Your task to perform on an android device: turn off sleep mode Image 0: 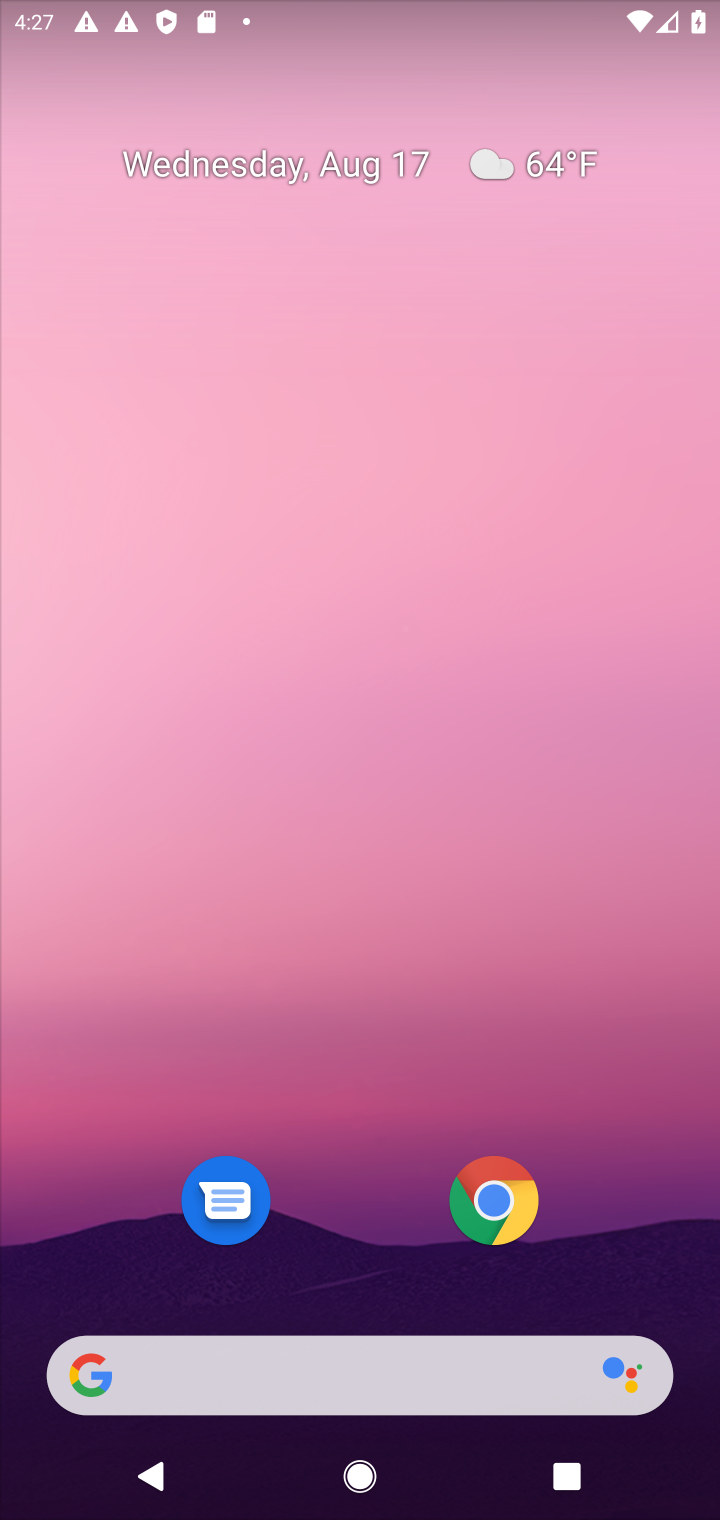
Step 0: drag from (411, 1209) to (411, 463)
Your task to perform on an android device: turn off sleep mode Image 1: 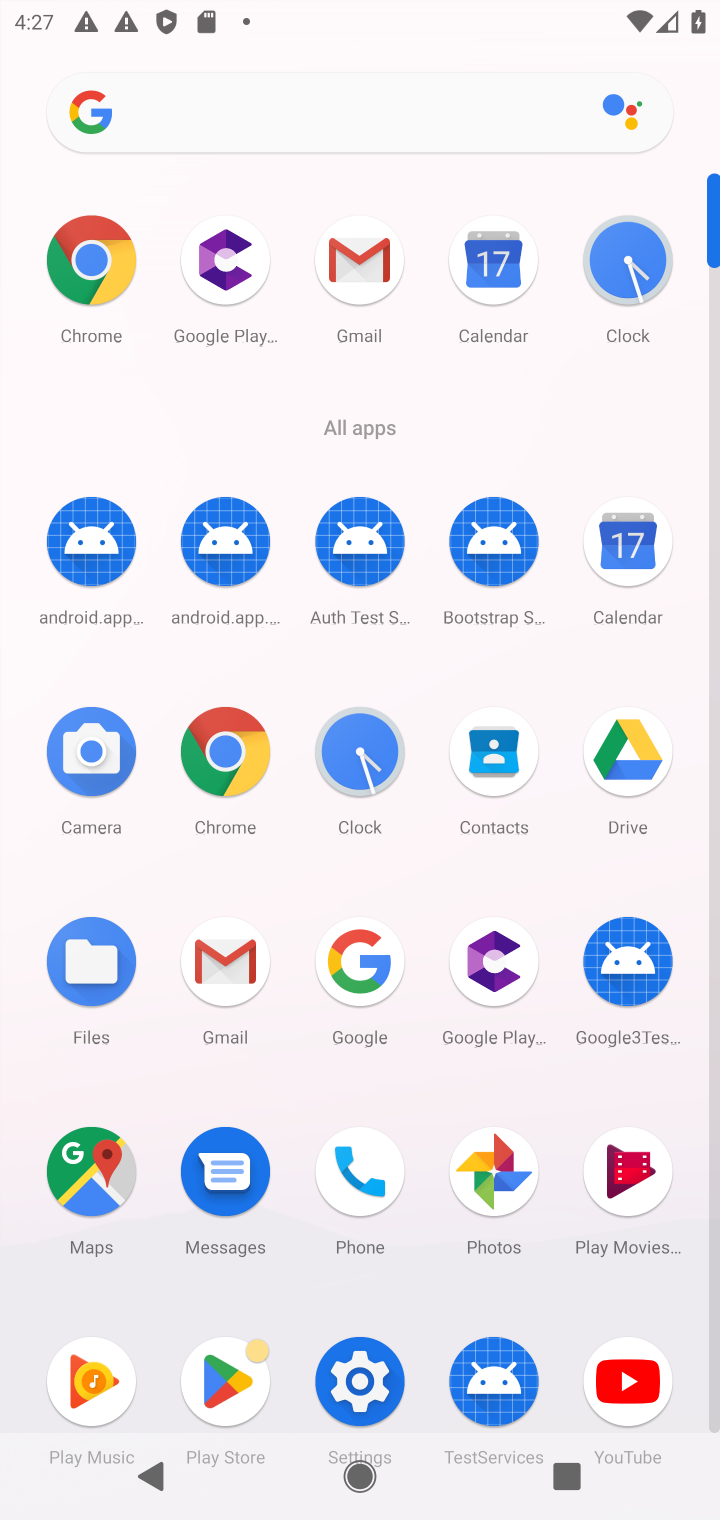
Step 1: click (354, 1369)
Your task to perform on an android device: turn off sleep mode Image 2: 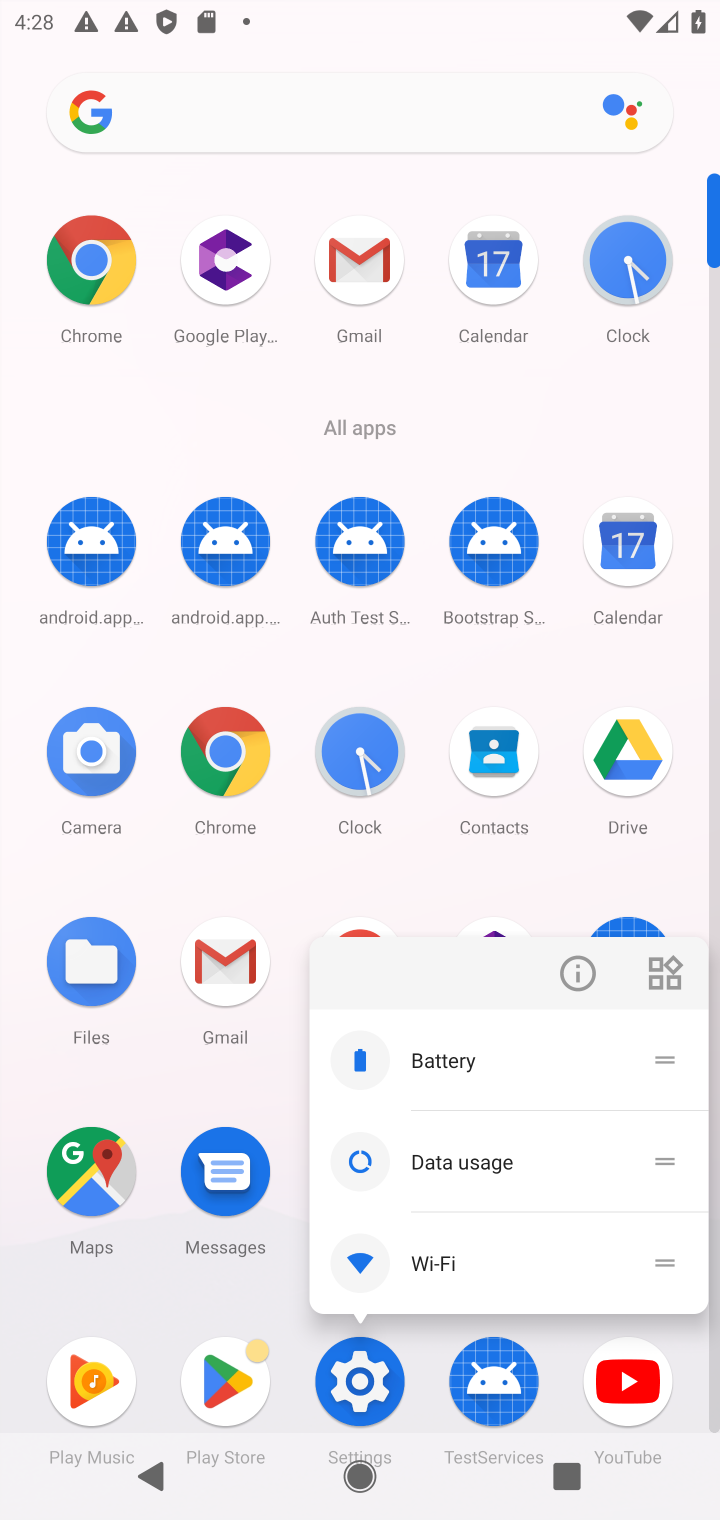
Step 2: click (354, 1377)
Your task to perform on an android device: turn off sleep mode Image 3: 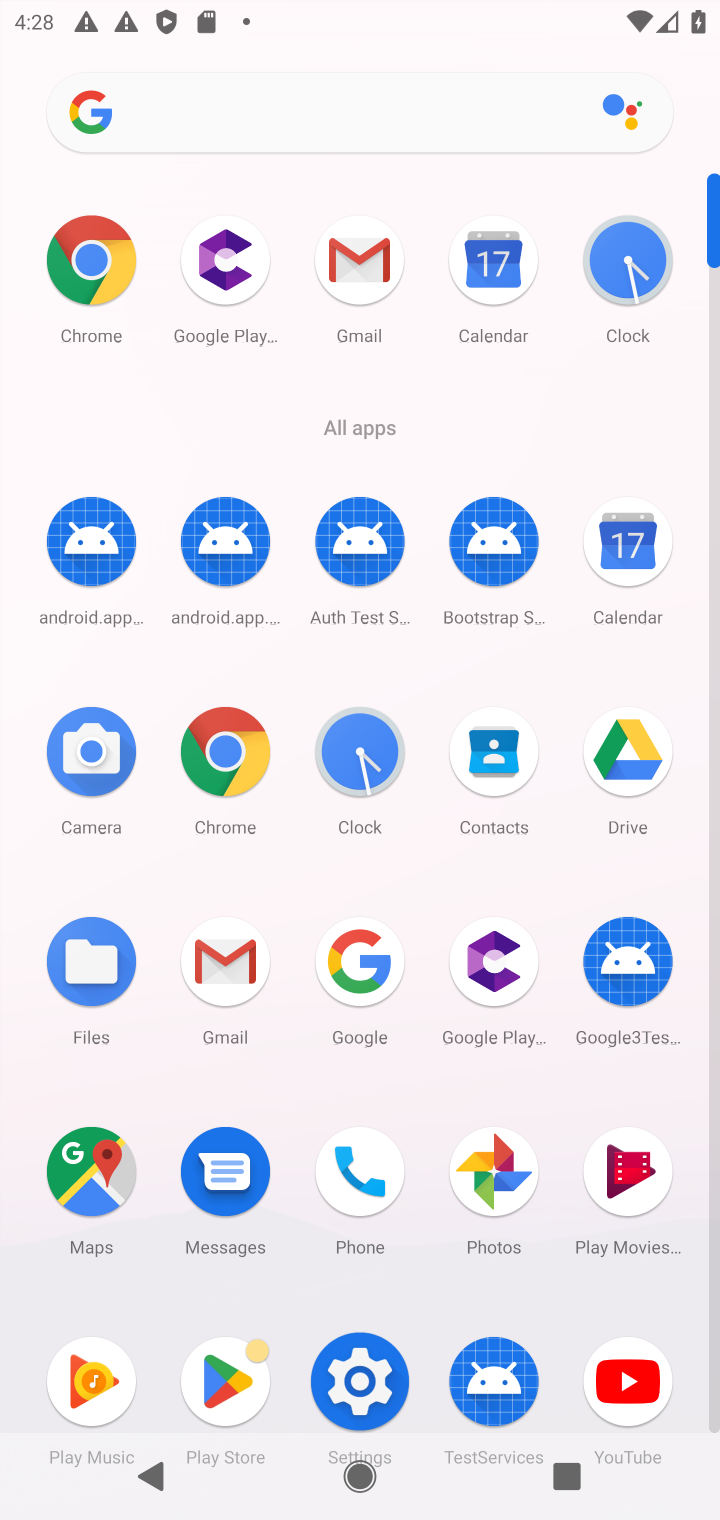
Step 3: click (361, 1360)
Your task to perform on an android device: turn off sleep mode Image 4: 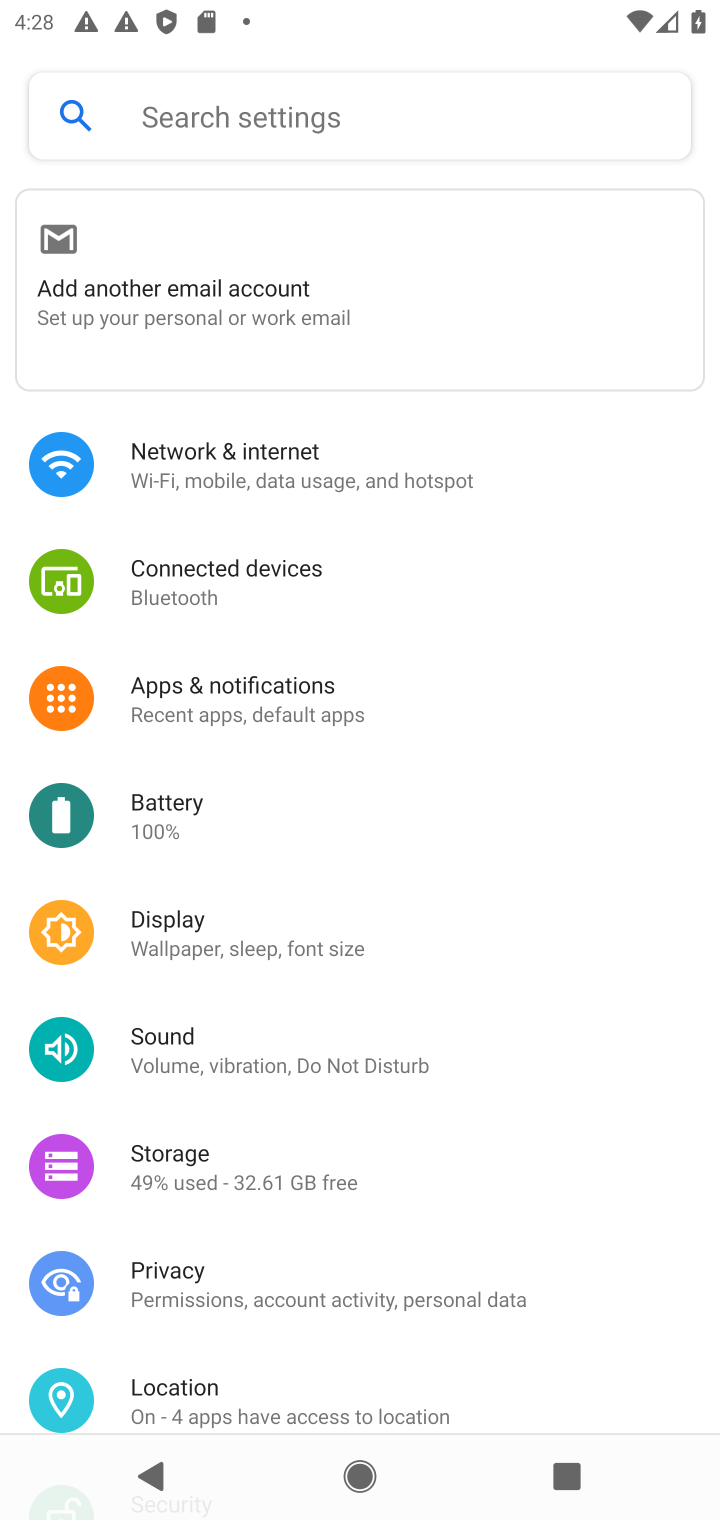
Step 4: click (258, 946)
Your task to perform on an android device: turn off sleep mode Image 5: 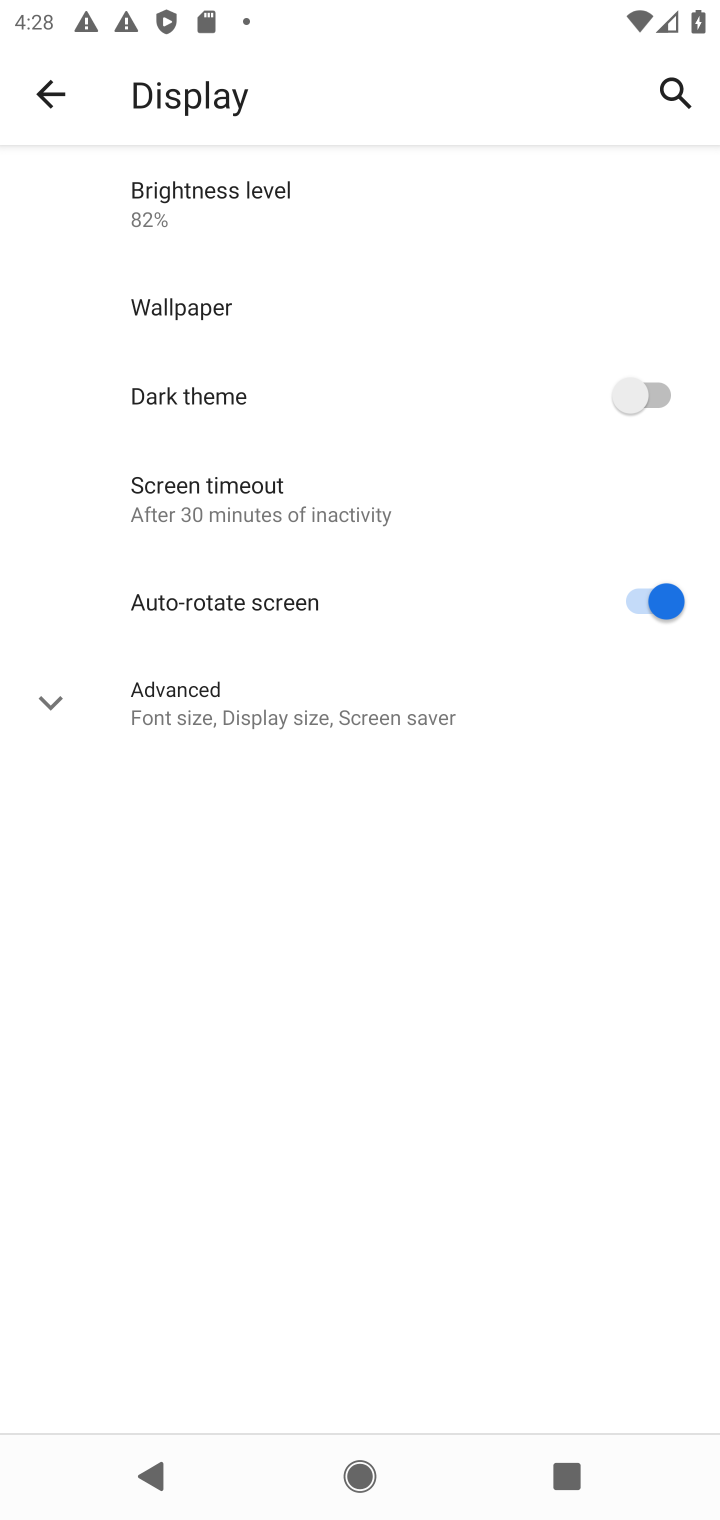
Step 5: task complete